Your task to perform on an android device: Find coffee shops on Maps Image 0: 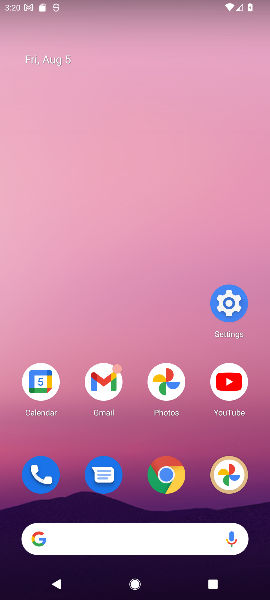
Step 0: drag from (250, 536) to (153, 132)
Your task to perform on an android device: Find coffee shops on Maps Image 1: 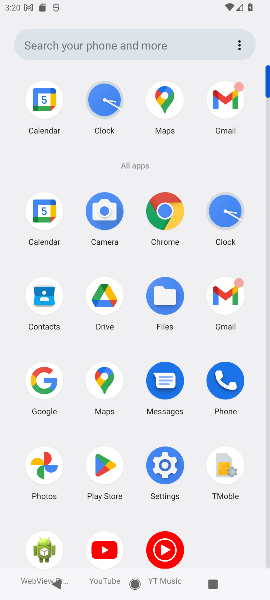
Step 1: click (108, 377)
Your task to perform on an android device: Find coffee shops on Maps Image 2: 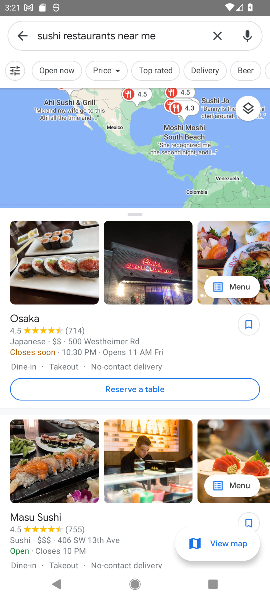
Step 2: click (215, 35)
Your task to perform on an android device: Find coffee shops on Maps Image 3: 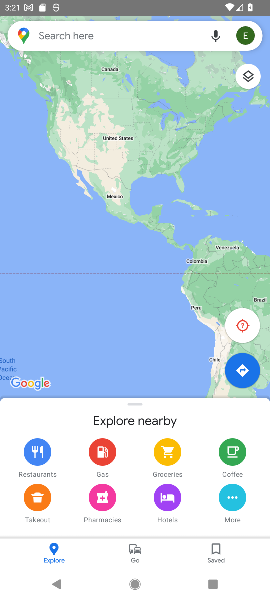
Step 3: type "coffee"
Your task to perform on an android device: Find coffee shops on Maps Image 4: 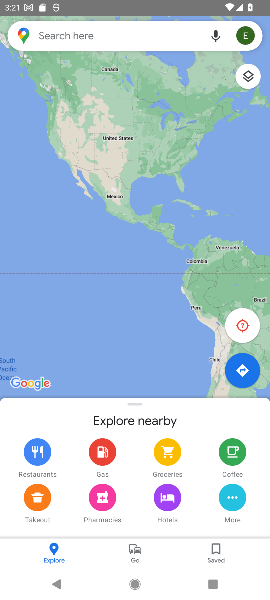
Step 4: click (91, 29)
Your task to perform on an android device: Find coffee shops on Maps Image 5: 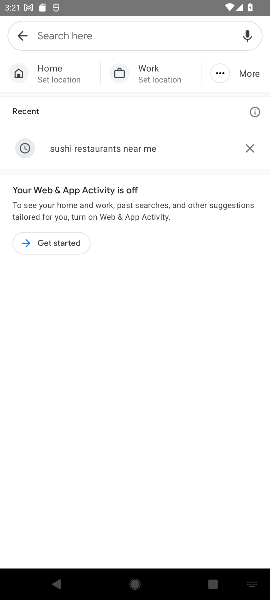
Step 5: type "coffee"
Your task to perform on an android device: Find coffee shops on Maps Image 6: 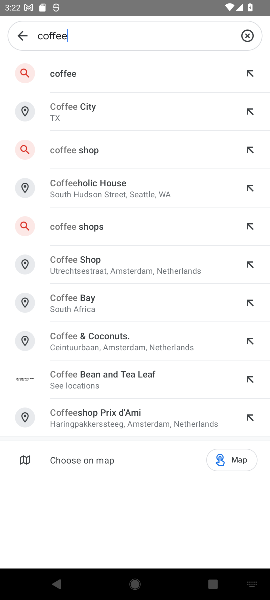
Step 6: click (65, 64)
Your task to perform on an android device: Find coffee shops on Maps Image 7: 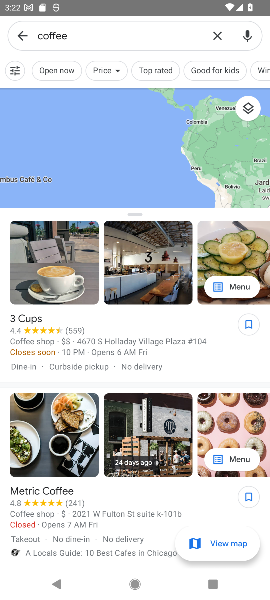
Step 7: task complete